Your task to perform on an android device: delete location history Image 0: 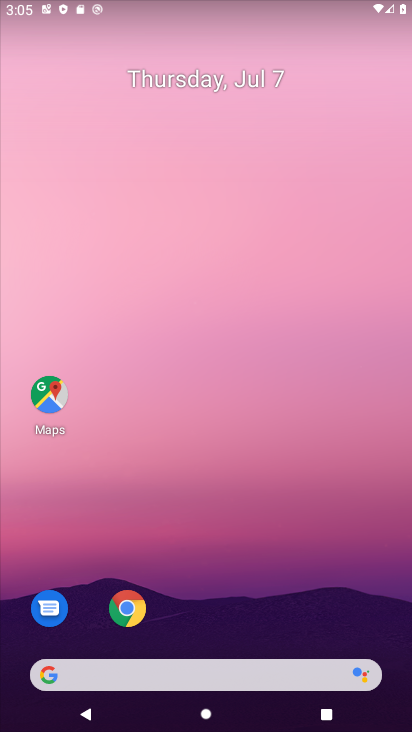
Step 0: drag from (377, 608) to (352, 367)
Your task to perform on an android device: delete location history Image 1: 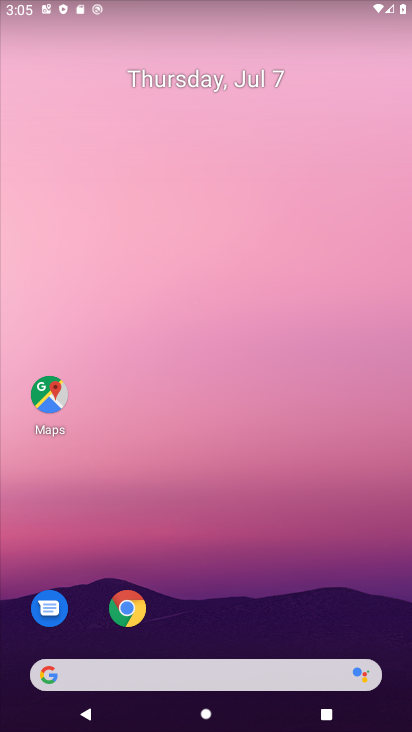
Step 1: click (45, 391)
Your task to perform on an android device: delete location history Image 2: 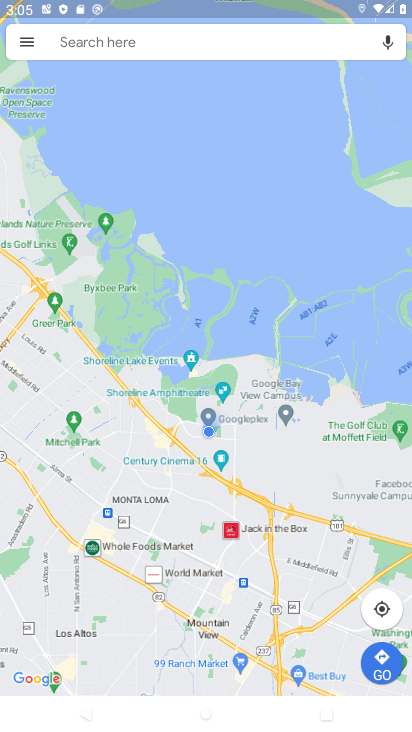
Step 2: click (27, 43)
Your task to perform on an android device: delete location history Image 3: 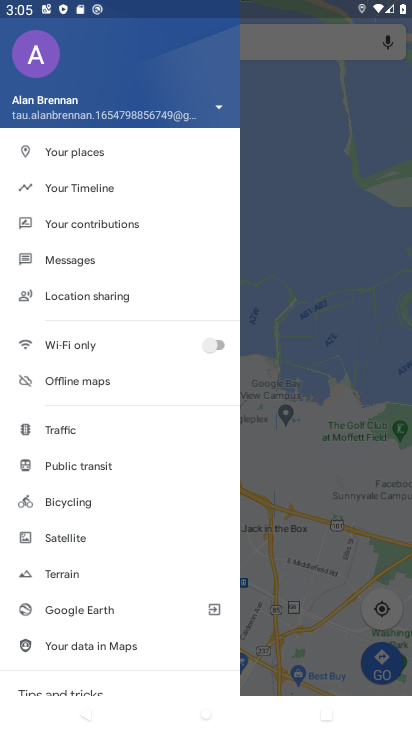
Step 3: drag from (154, 620) to (147, 269)
Your task to perform on an android device: delete location history Image 4: 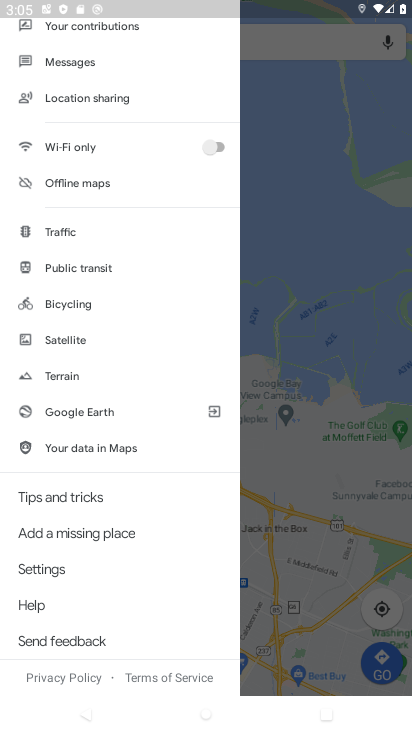
Step 4: click (36, 564)
Your task to perform on an android device: delete location history Image 5: 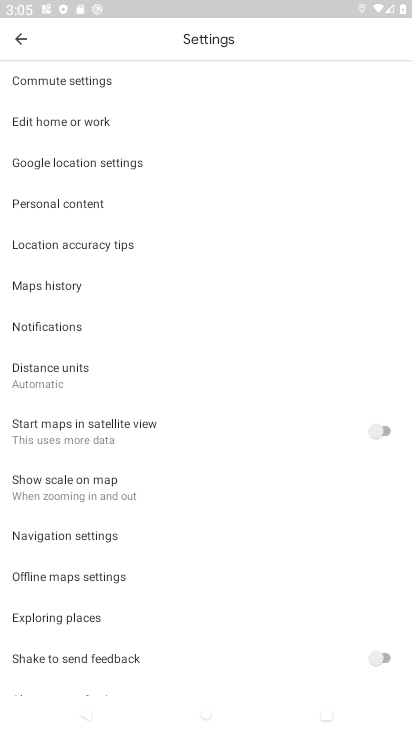
Step 5: click (65, 203)
Your task to perform on an android device: delete location history Image 6: 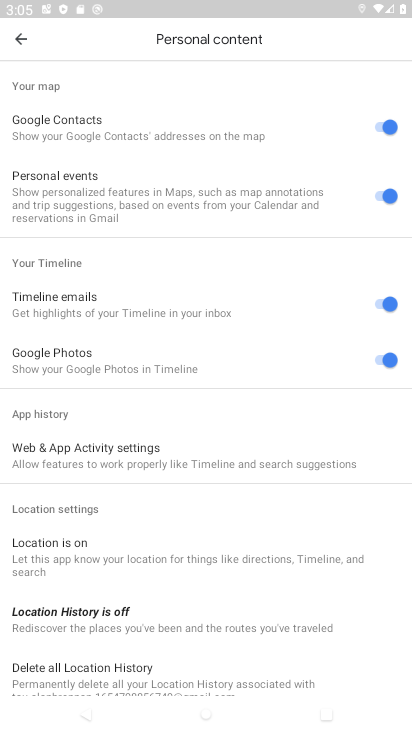
Step 6: drag from (235, 585) to (252, 375)
Your task to perform on an android device: delete location history Image 7: 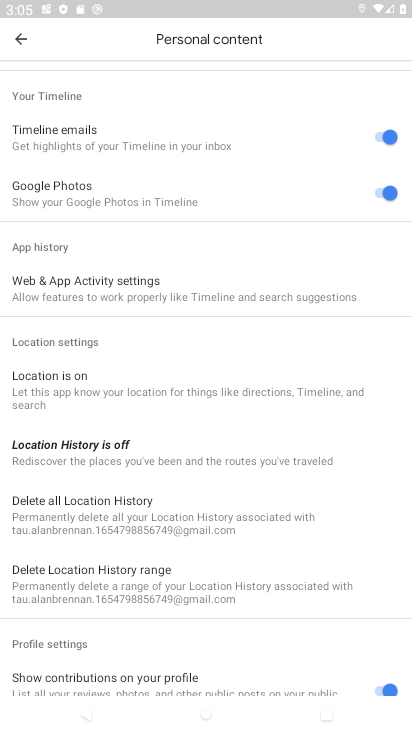
Step 7: click (74, 507)
Your task to perform on an android device: delete location history Image 8: 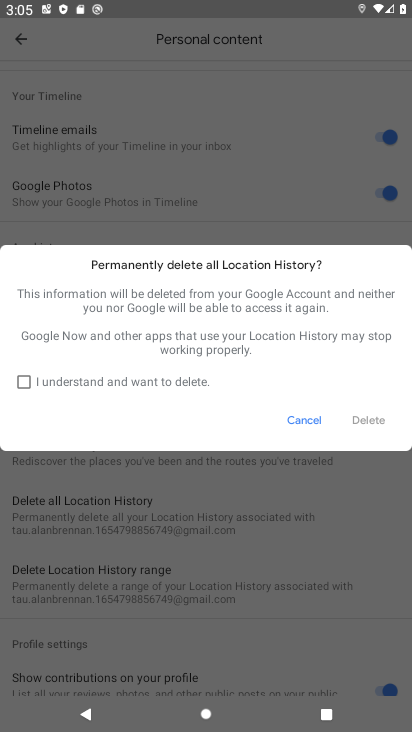
Step 8: click (19, 375)
Your task to perform on an android device: delete location history Image 9: 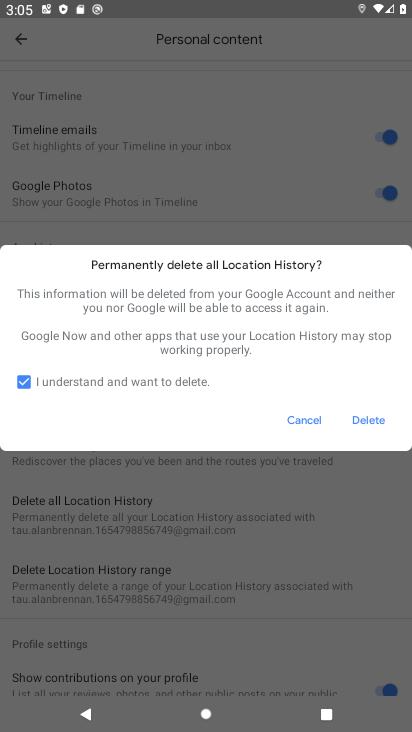
Step 9: click (368, 423)
Your task to perform on an android device: delete location history Image 10: 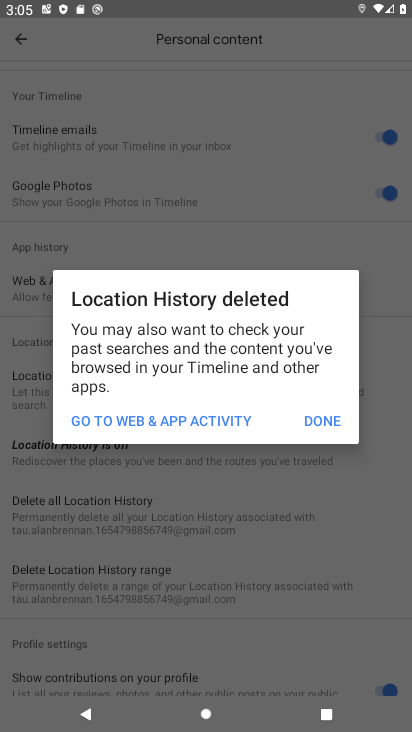
Step 10: click (315, 415)
Your task to perform on an android device: delete location history Image 11: 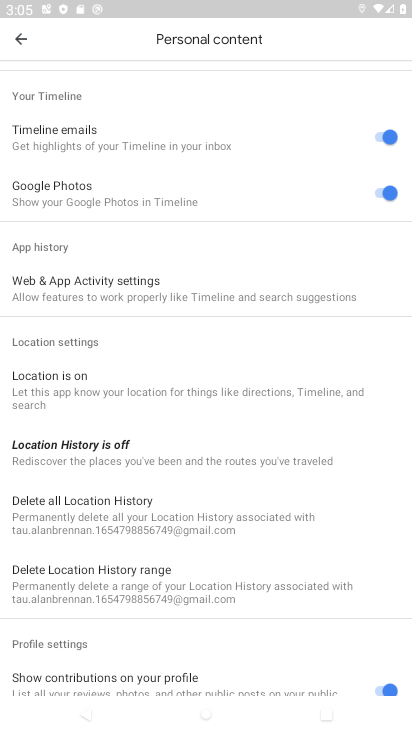
Step 11: task complete